Your task to perform on an android device: Open calendar and show me the first week of next month Image 0: 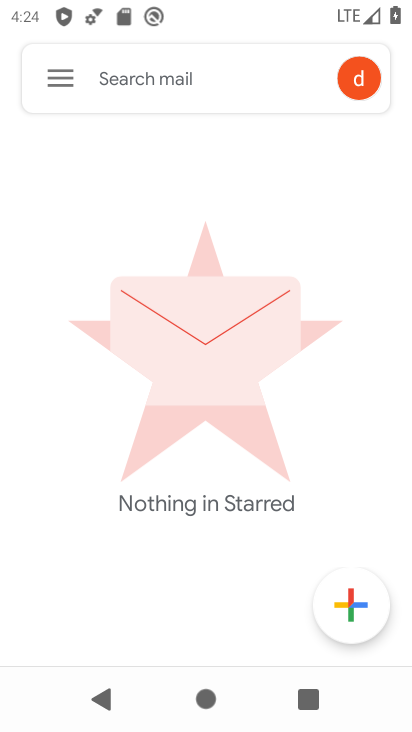
Step 0: press home button
Your task to perform on an android device: Open calendar and show me the first week of next month Image 1: 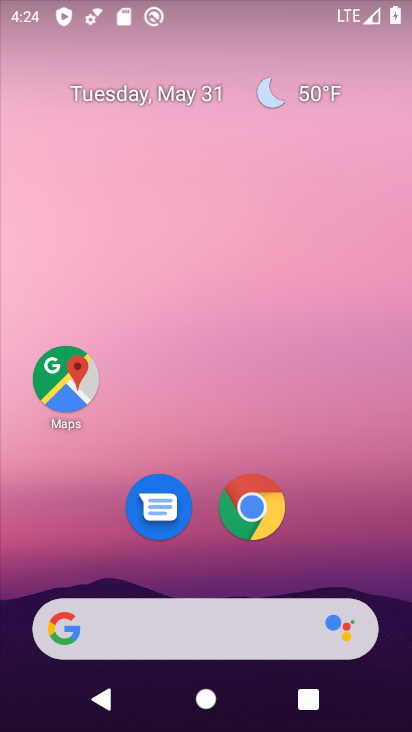
Step 1: drag from (255, 441) to (191, 116)
Your task to perform on an android device: Open calendar and show me the first week of next month Image 2: 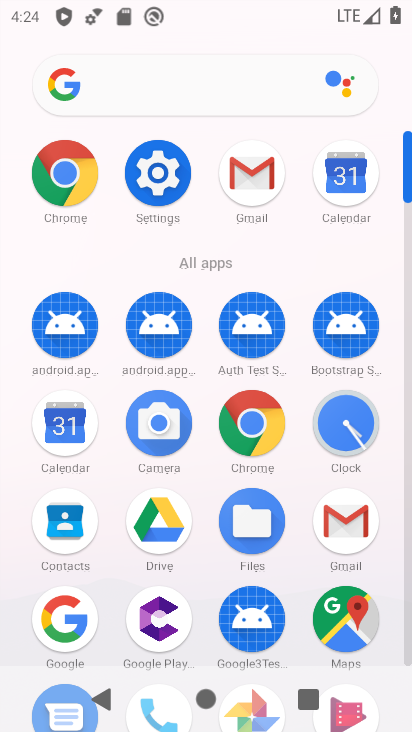
Step 2: click (349, 173)
Your task to perform on an android device: Open calendar and show me the first week of next month Image 3: 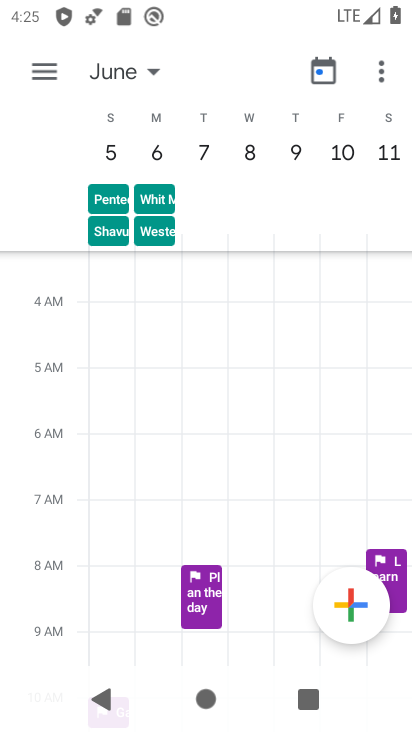
Step 3: task complete